Your task to perform on an android device: Open settings on Google Maps Image 0: 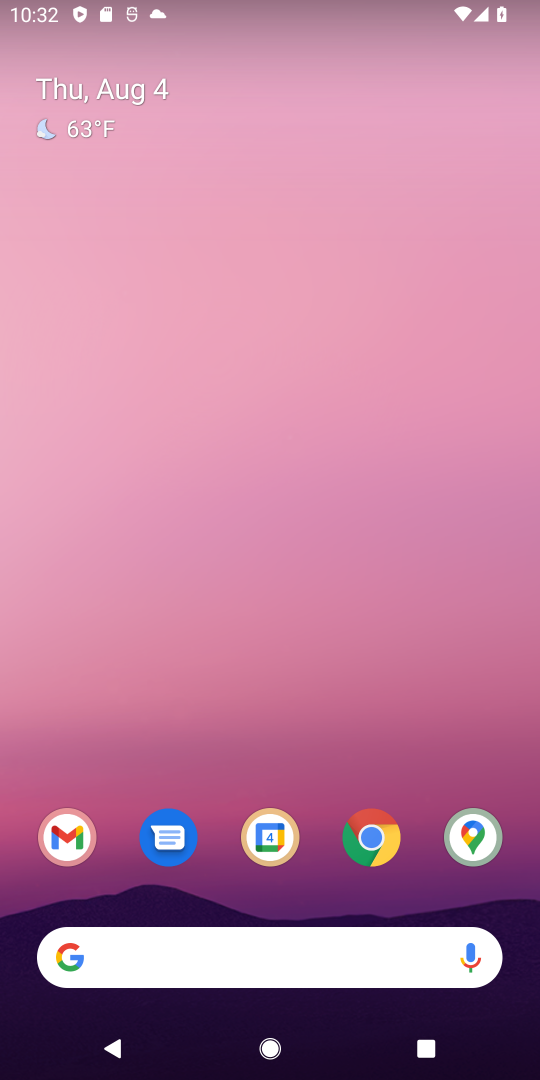
Step 0: press home button
Your task to perform on an android device: Open settings on Google Maps Image 1: 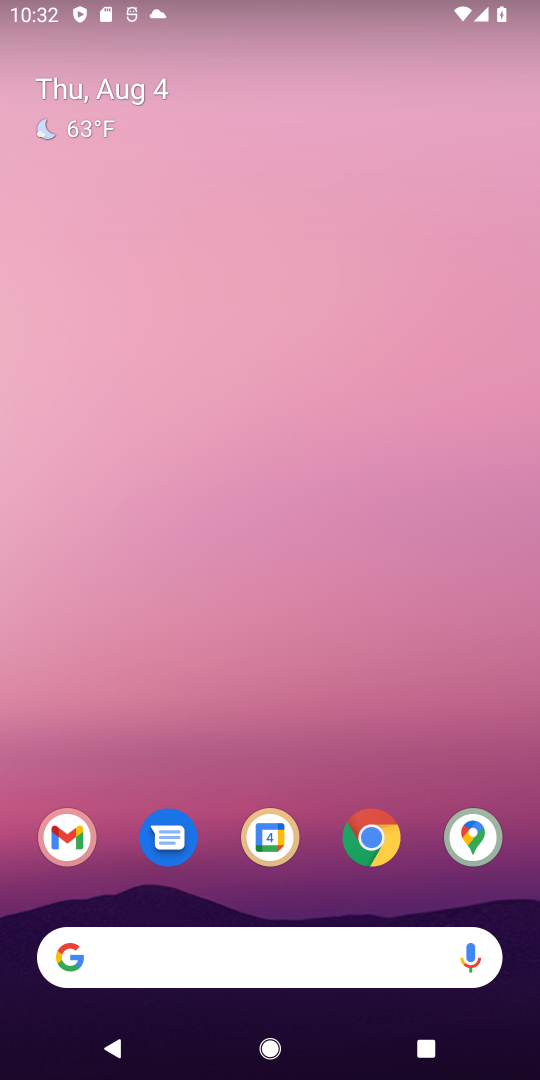
Step 1: drag from (319, 895) to (323, 76)
Your task to perform on an android device: Open settings on Google Maps Image 2: 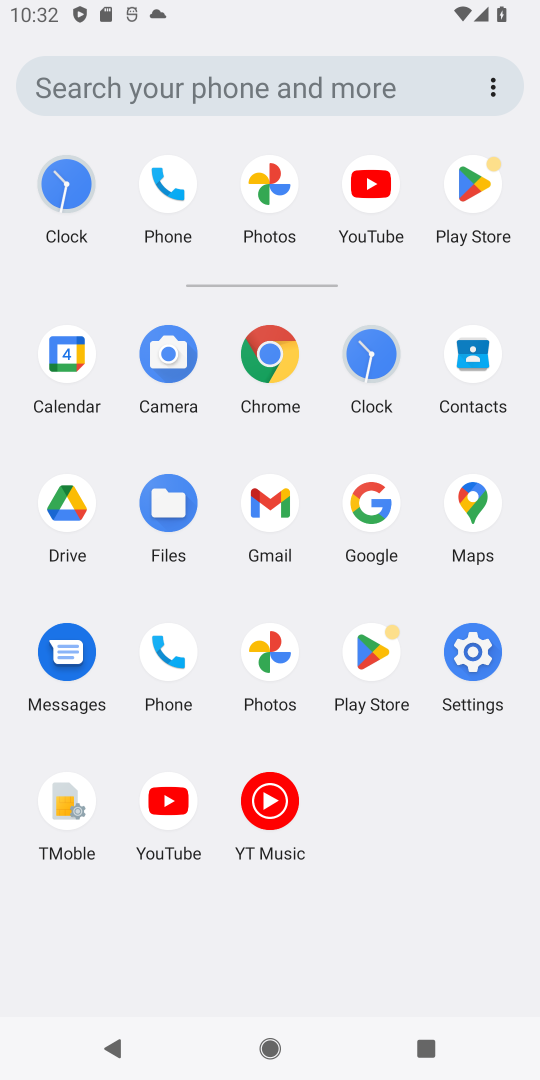
Step 2: click (472, 492)
Your task to perform on an android device: Open settings on Google Maps Image 3: 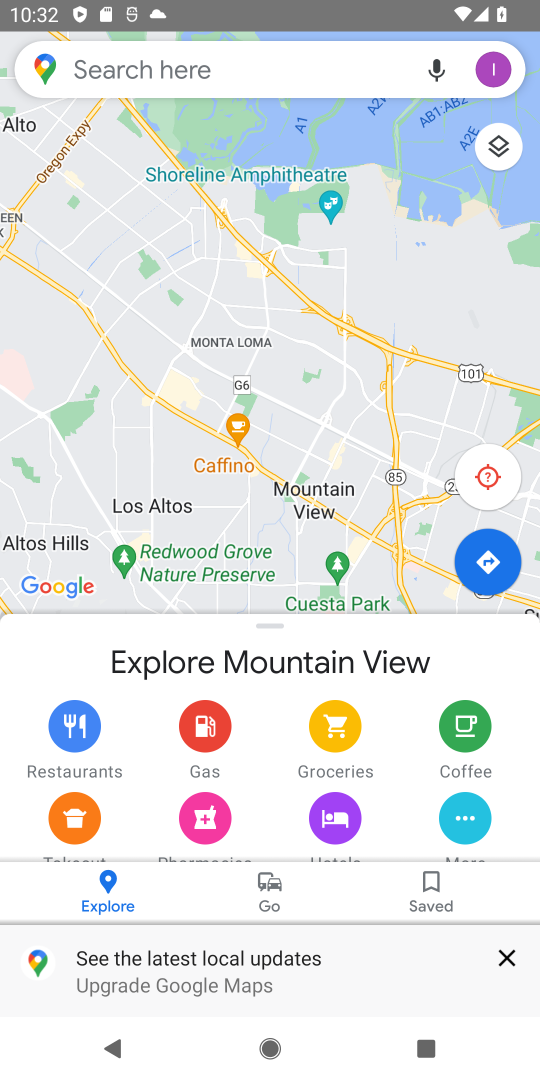
Step 3: click (503, 55)
Your task to perform on an android device: Open settings on Google Maps Image 4: 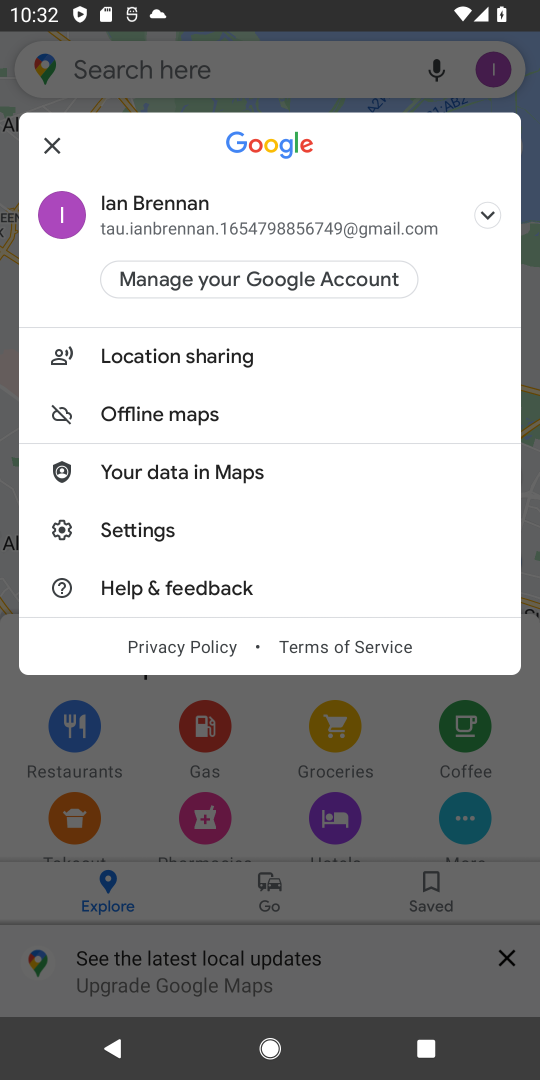
Step 4: click (187, 535)
Your task to perform on an android device: Open settings on Google Maps Image 5: 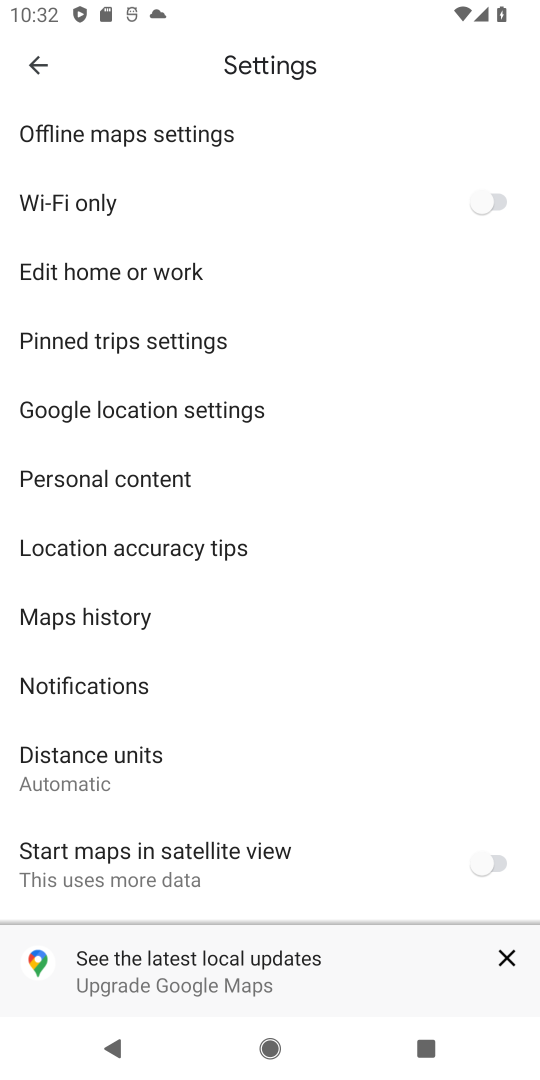
Step 5: task complete